Your task to perform on an android device: Show me productivity apps on the Play Store Image 0: 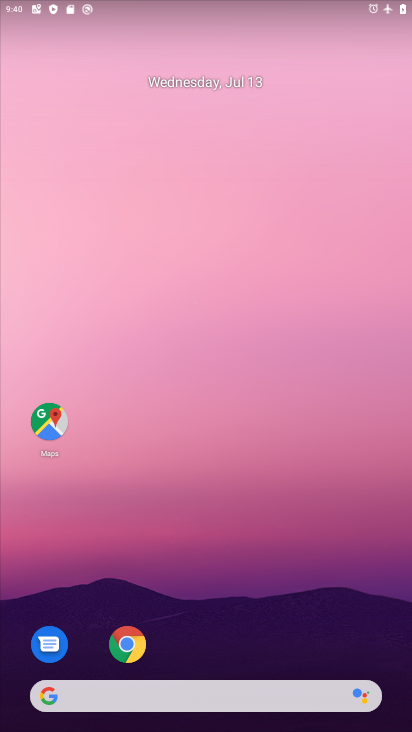
Step 0: drag from (223, 716) to (256, 143)
Your task to perform on an android device: Show me productivity apps on the Play Store Image 1: 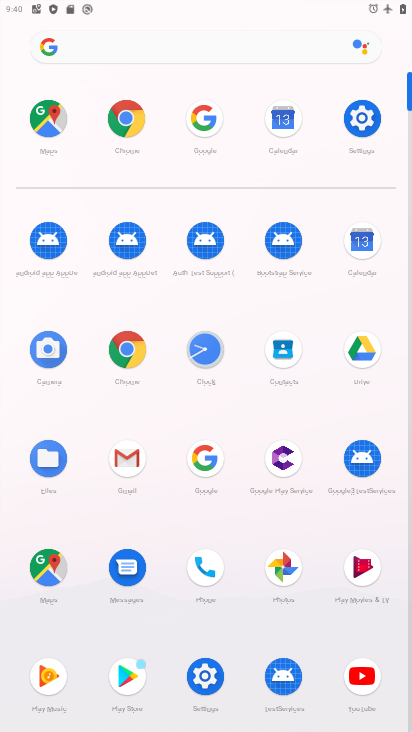
Step 1: click (124, 680)
Your task to perform on an android device: Show me productivity apps on the Play Store Image 2: 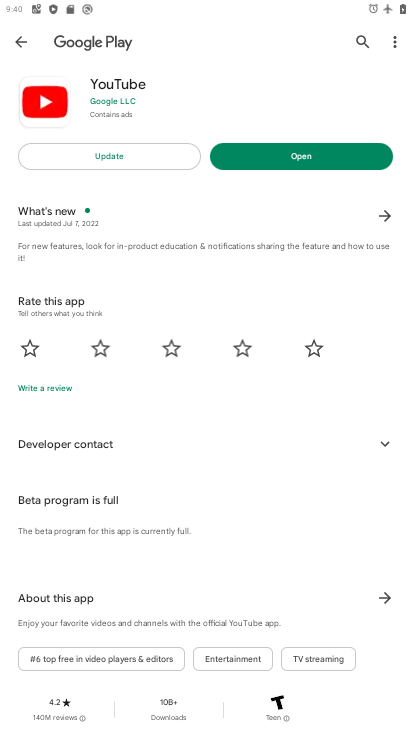
Step 2: click (20, 41)
Your task to perform on an android device: Show me productivity apps on the Play Store Image 3: 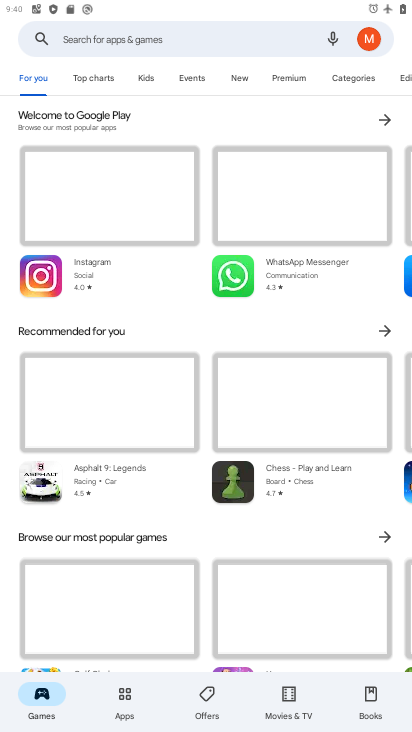
Step 3: click (124, 703)
Your task to perform on an android device: Show me productivity apps on the Play Store Image 4: 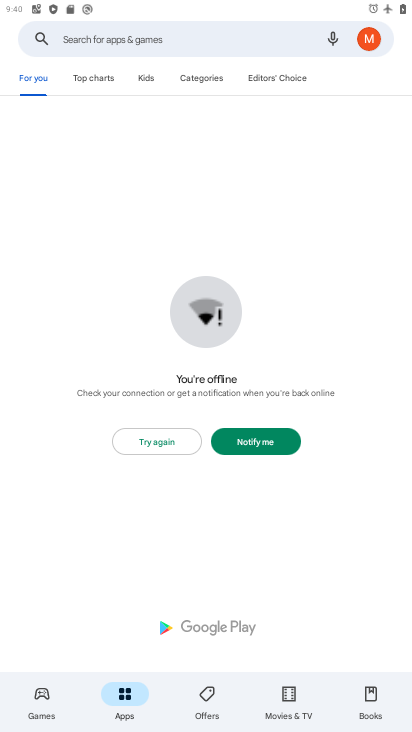
Step 4: click (193, 76)
Your task to perform on an android device: Show me productivity apps on the Play Store Image 5: 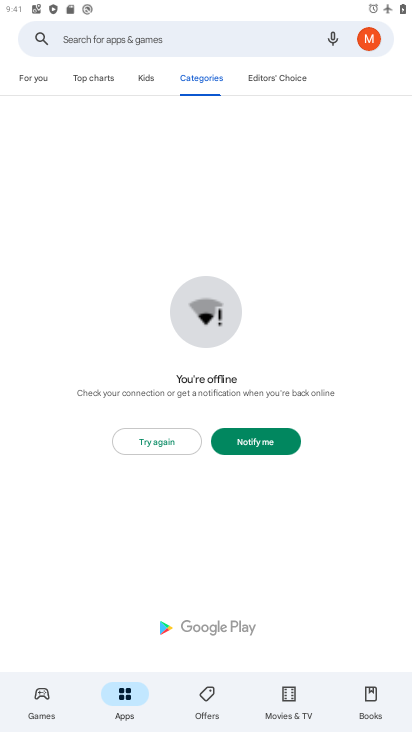
Step 5: click (161, 448)
Your task to perform on an android device: Show me productivity apps on the Play Store Image 6: 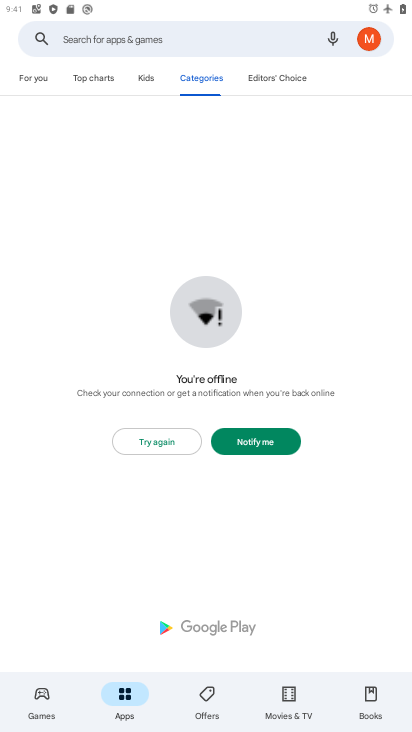
Step 6: task complete